Your task to perform on an android device: see creations saved in the google photos Image 0: 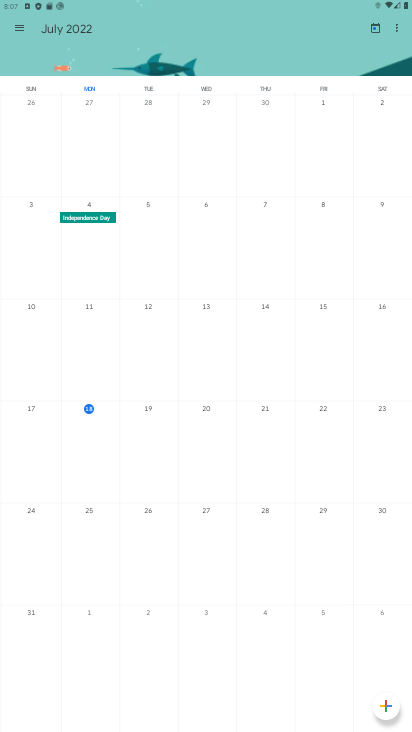
Step 0: press home button
Your task to perform on an android device: see creations saved in the google photos Image 1: 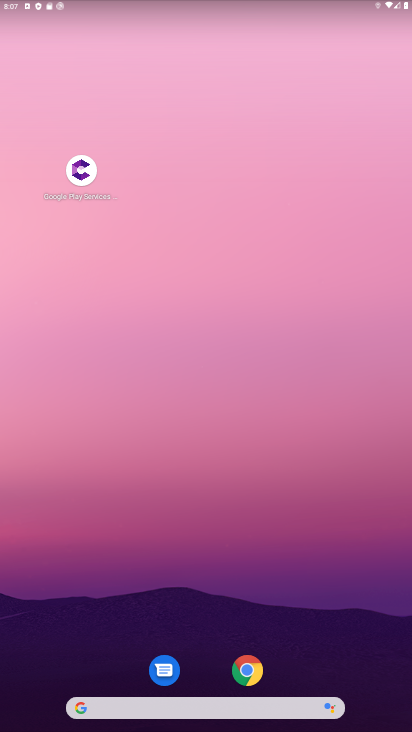
Step 1: drag from (224, 323) to (304, 4)
Your task to perform on an android device: see creations saved in the google photos Image 2: 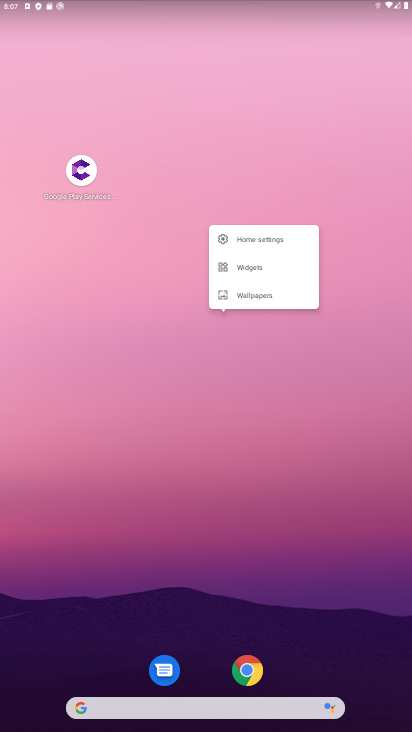
Step 2: click (194, 516)
Your task to perform on an android device: see creations saved in the google photos Image 3: 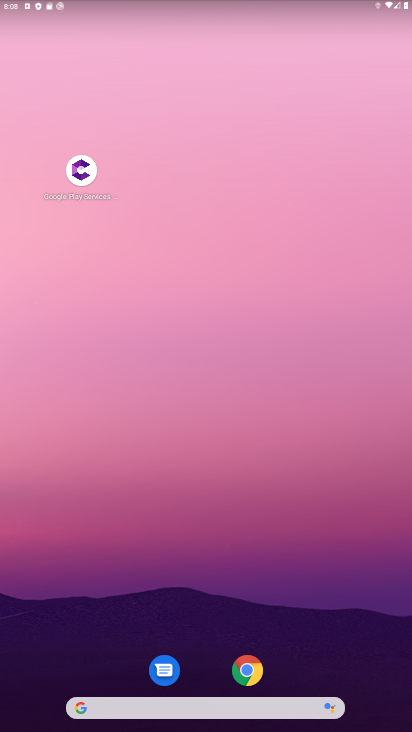
Step 3: drag from (202, 626) to (225, 96)
Your task to perform on an android device: see creations saved in the google photos Image 4: 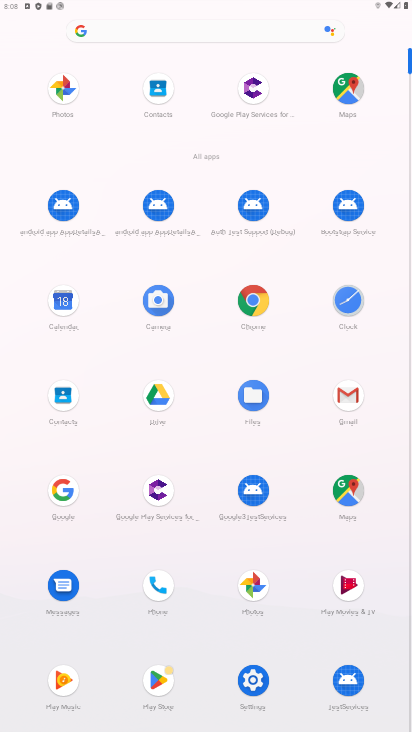
Step 4: click (255, 591)
Your task to perform on an android device: see creations saved in the google photos Image 5: 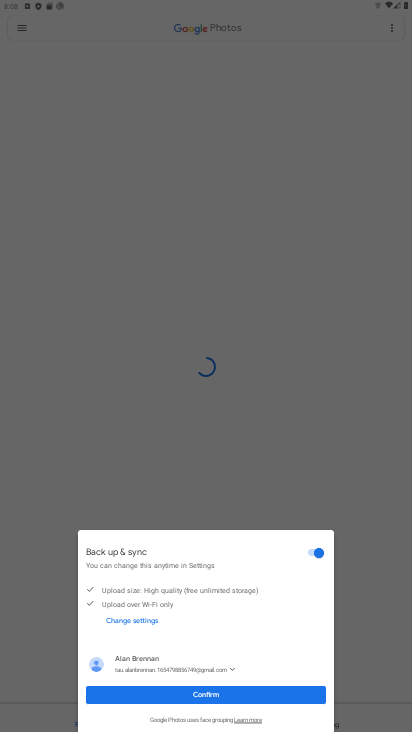
Step 5: click (200, 688)
Your task to perform on an android device: see creations saved in the google photos Image 6: 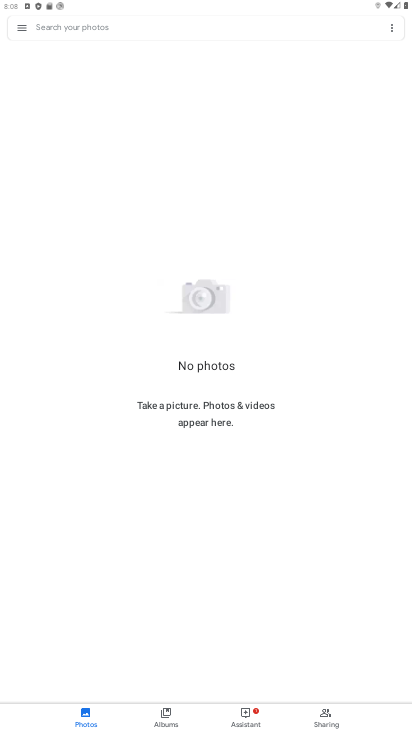
Step 6: click (22, 21)
Your task to perform on an android device: see creations saved in the google photos Image 7: 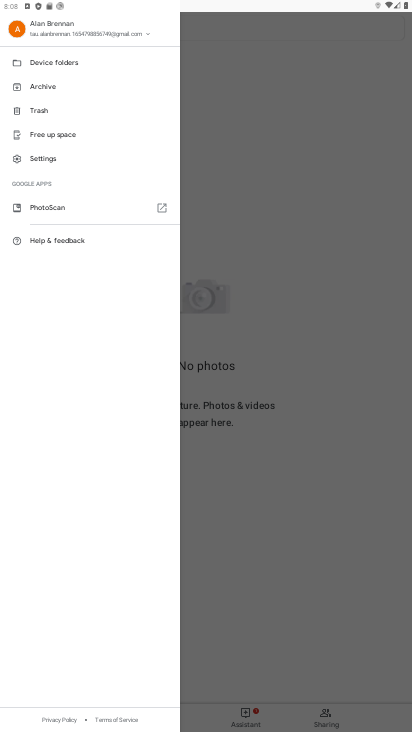
Step 7: click (314, 685)
Your task to perform on an android device: see creations saved in the google photos Image 8: 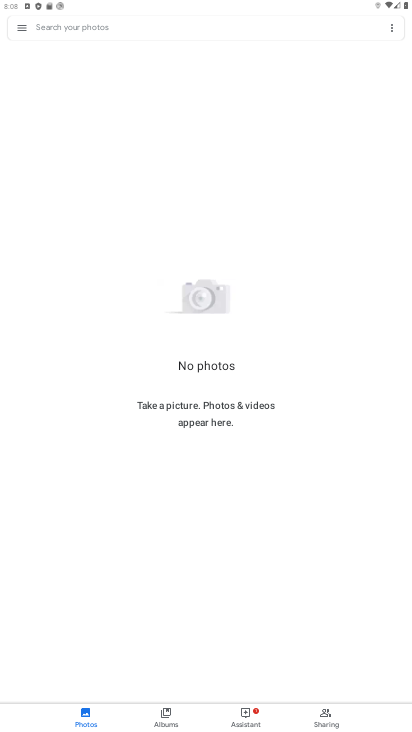
Step 8: click (124, 27)
Your task to perform on an android device: see creations saved in the google photos Image 9: 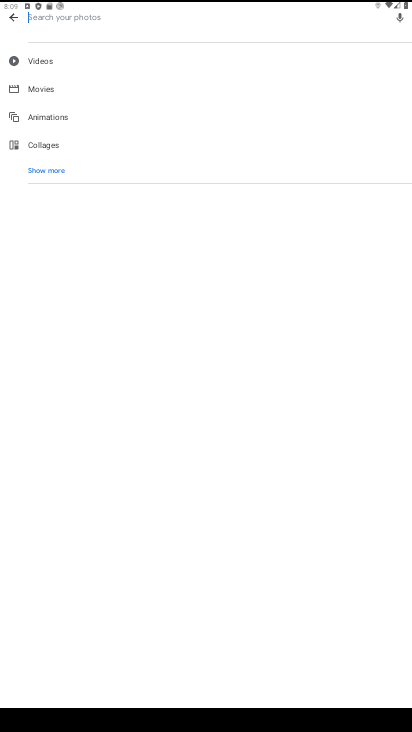
Step 9: click (35, 176)
Your task to perform on an android device: see creations saved in the google photos Image 10: 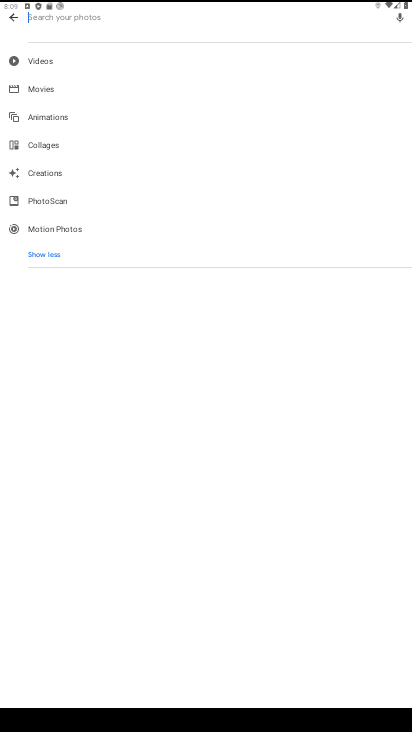
Step 10: click (36, 170)
Your task to perform on an android device: see creations saved in the google photos Image 11: 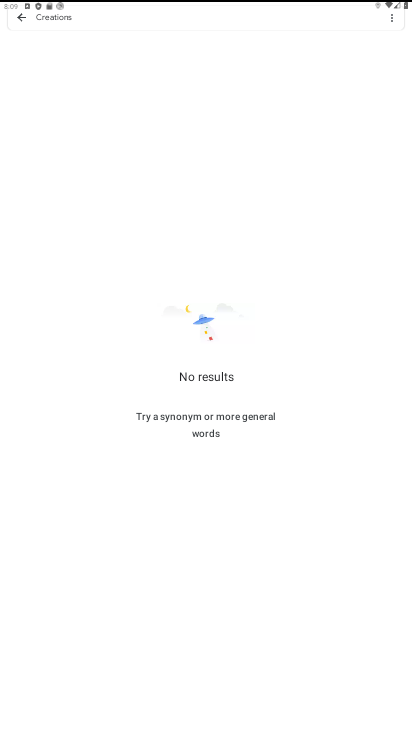
Step 11: task complete